Your task to perform on an android device: Go to location settings Image 0: 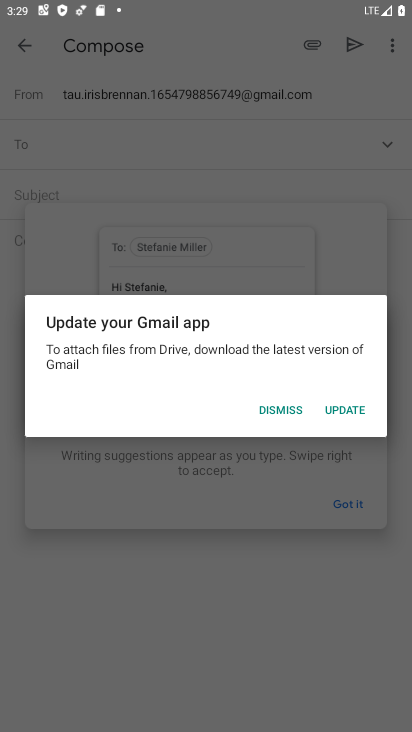
Step 0: press home button
Your task to perform on an android device: Go to location settings Image 1: 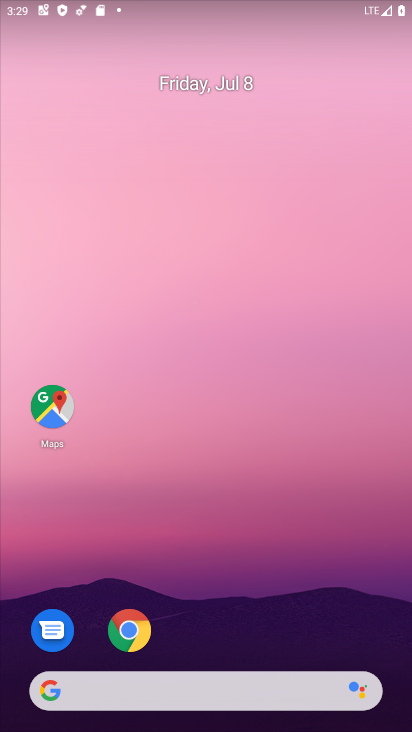
Step 1: drag from (233, 654) to (231, 111)
Your task to perform on an android device: Go to location settings Image 2: 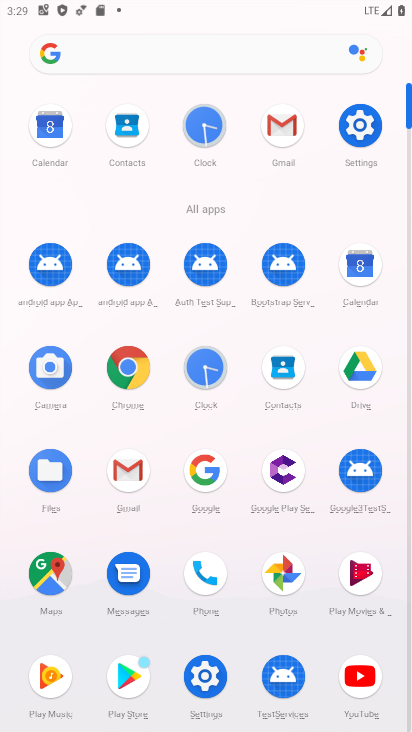
Step 2: click (358, 123)
Your task to perform on an android device: Go to location settings Image 3: 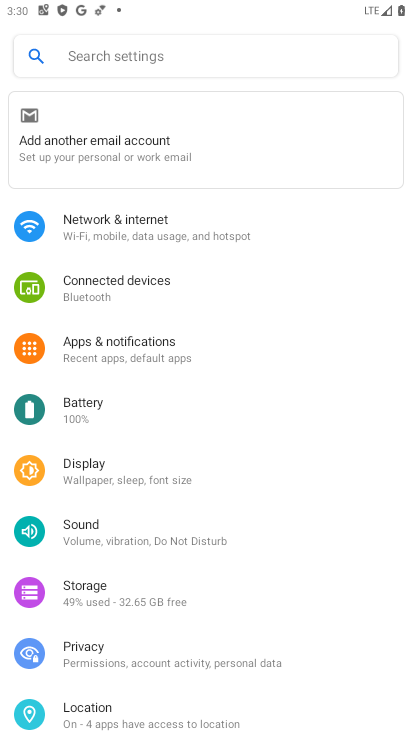
Step 3: drag from (131, 563) to (181, 484)
Your task to perform on an android device: Go to location settings Image 4: 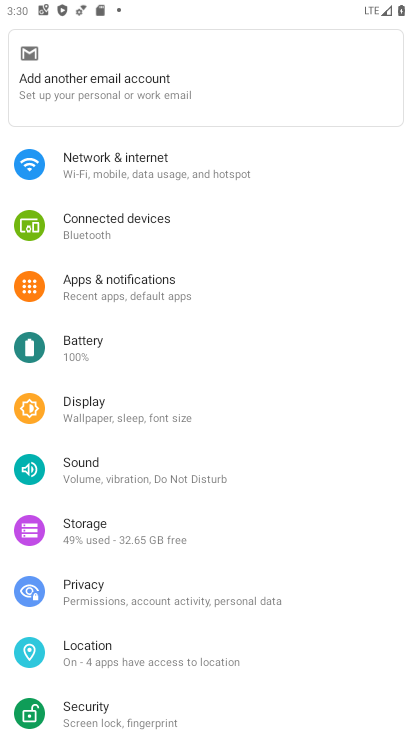
Step 4: click (82, 655)
Your task to perform on an android device: Go to location settings Image 5: 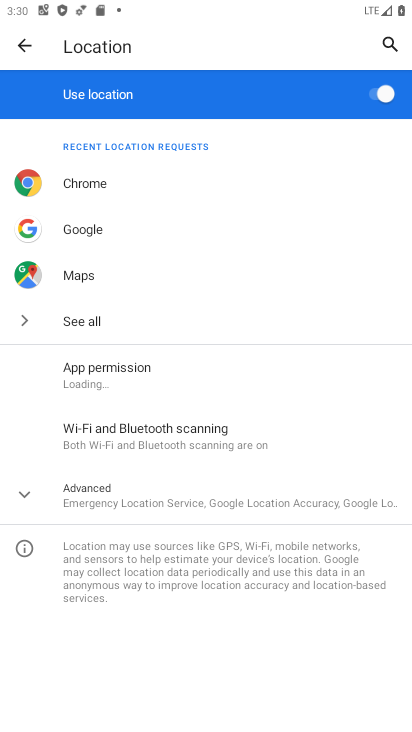
Step 5: task complete